Your task to perform on an android device: Go to Amazon Image 0: 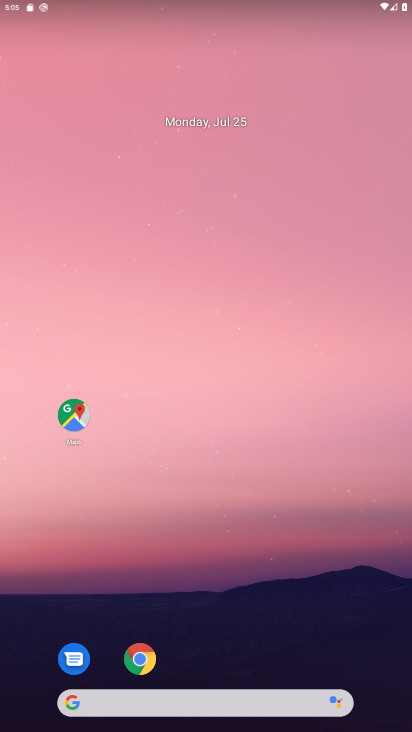
Step 0: click (141, 659)
Your task to perform on an android device: Go to Amazon Image 1: 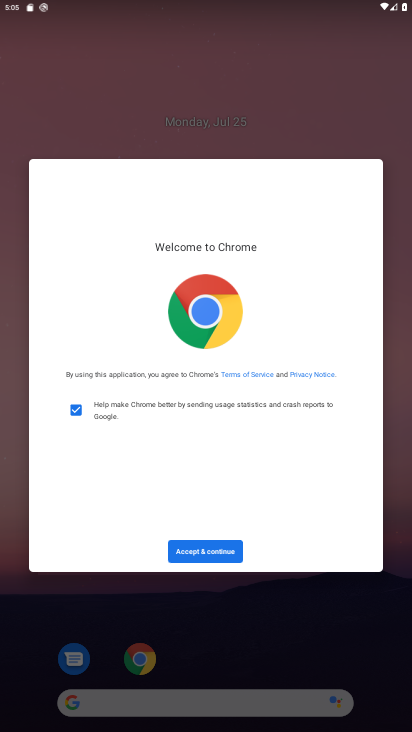
Step 1: click (209, 555)
Your task to perform on an android device: Go to Amazon Image 2: 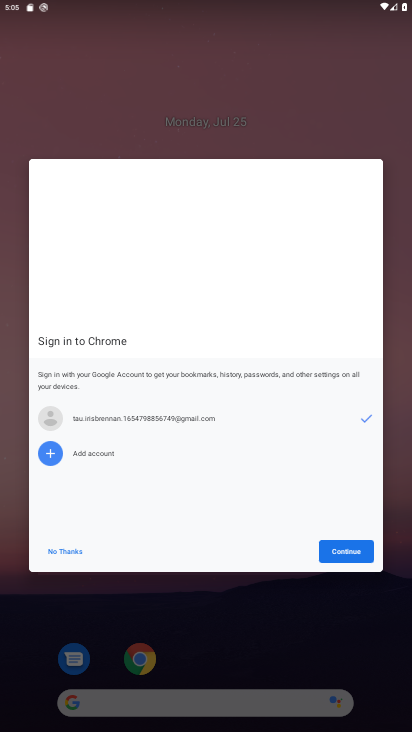
Step 2: click (352, 550)
Your task to perform on an android device: Go to Amazon Image 3: 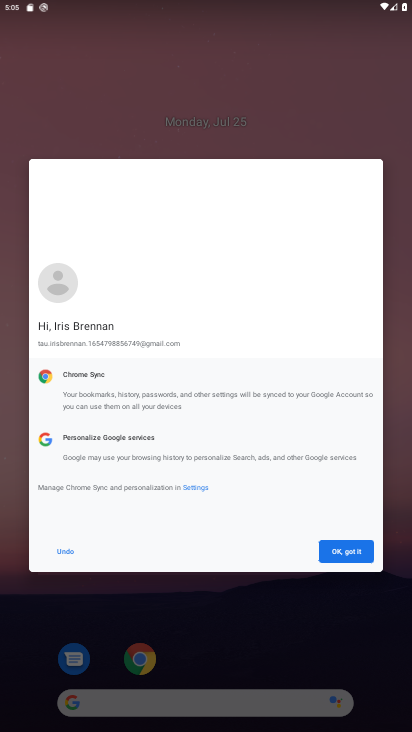
Step 3: click (352, 550)
Your task to perform on an android device: Go to Amazon Image 4: 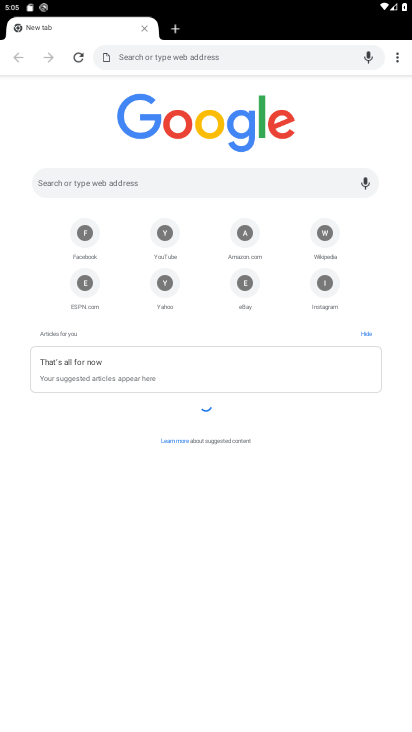
Step 4: click (253, 231)
Your task to perform on an android device: Go to Amazon Image 5: 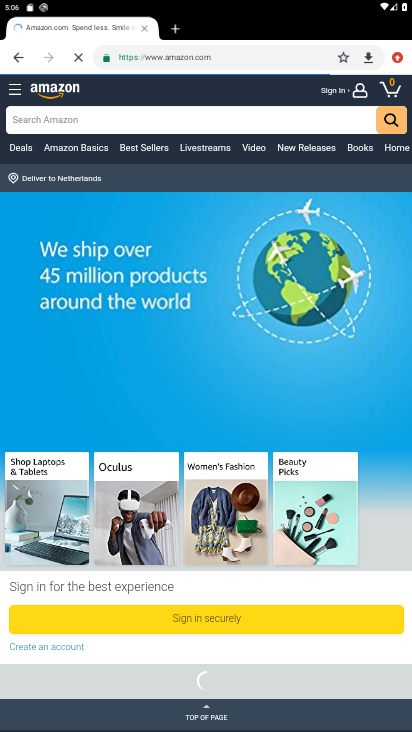
Step 5: task complete